Your task to perform on an android device: Open battery settings Image 0: 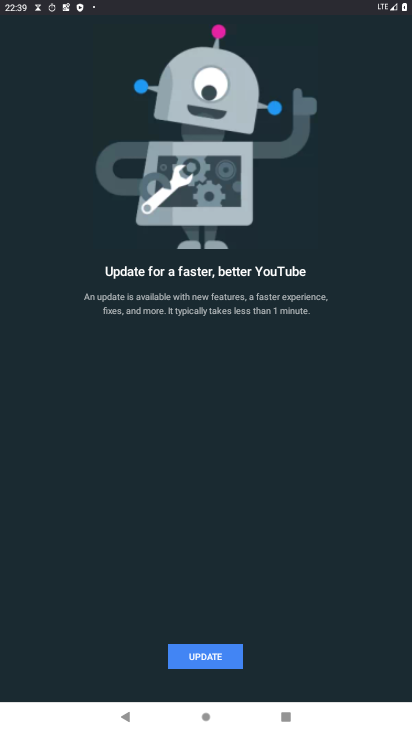
Step 0: press home button
Your task to perform on an android device: Open battery settings Image 1: 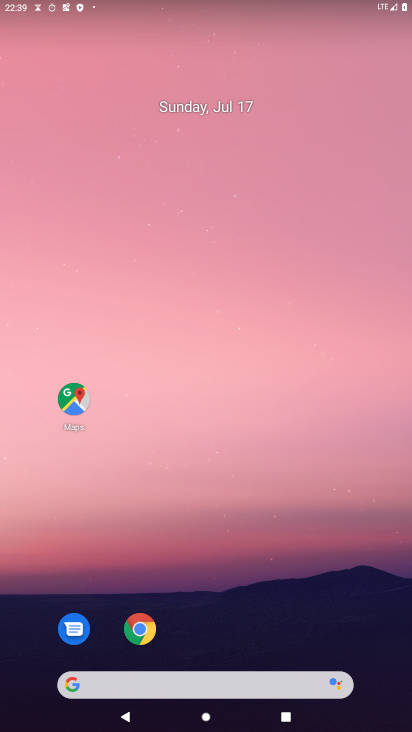
Step 1: drag from (225, 723) to (256, 45)
Your task to perform on an android device: Open battery settings Image 2: 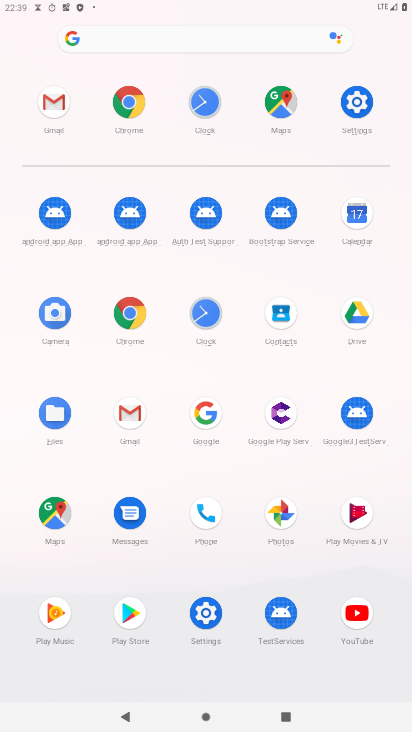
Step 2: click (358, 107)
Your task to perform on an android device: Open battery settings Image 3: 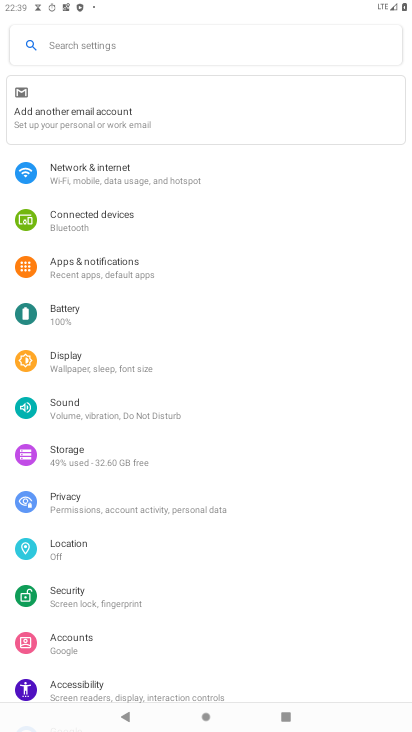
Step 3: click (60, 312)
Your task to perform on an android device: Open battery settings Image 4: 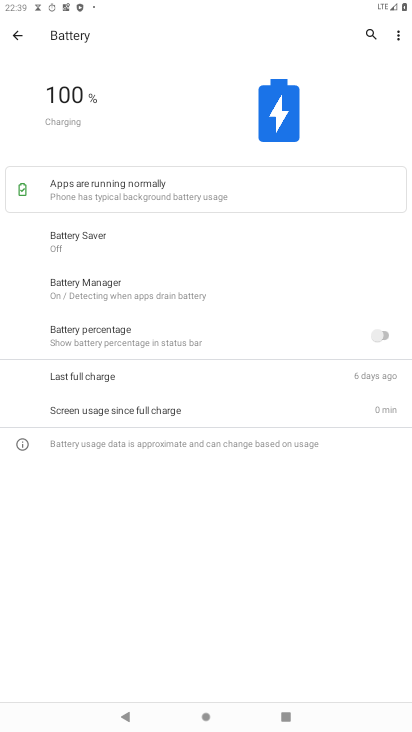
Step 4: task complete